Your task to perform on an android device: change the upload size in google photos Image 0: 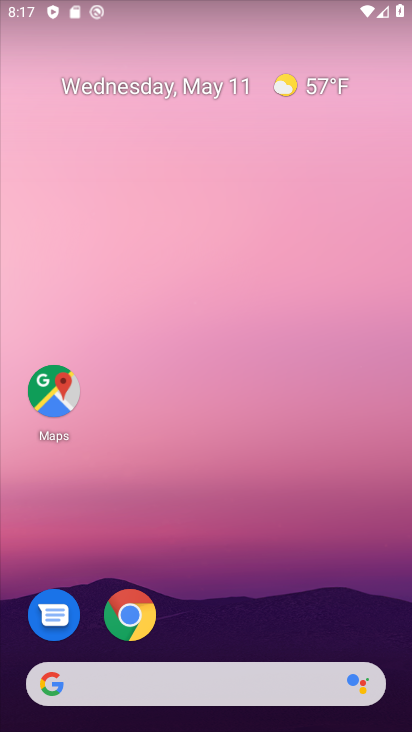
Step 0: drag from (297, 607) to (272, 139)
Your task to perform on an android device: change the upload size in google photos Image 1: 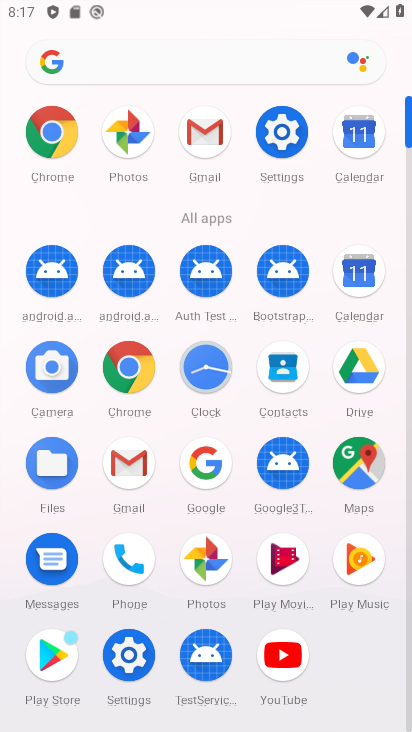
Step 1: click (218, 542)
Your task to perform on an android device: change the upload size in google photos Image 2: 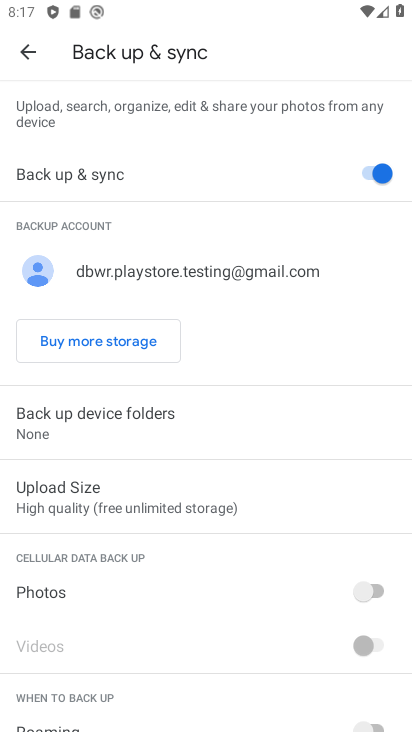
Step 2: click (142, 510)
Your task to perform on an android device: change the upload size in google photos Image 3: 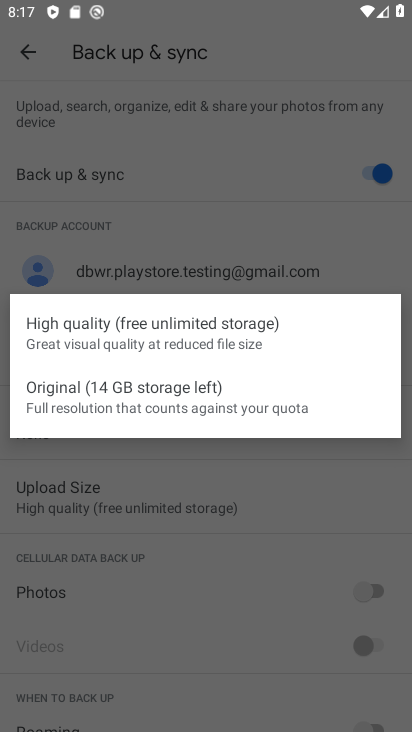
Step 3: click (146, 415)
Your task to perform on an android device: change the upload size in google photos Image 4: 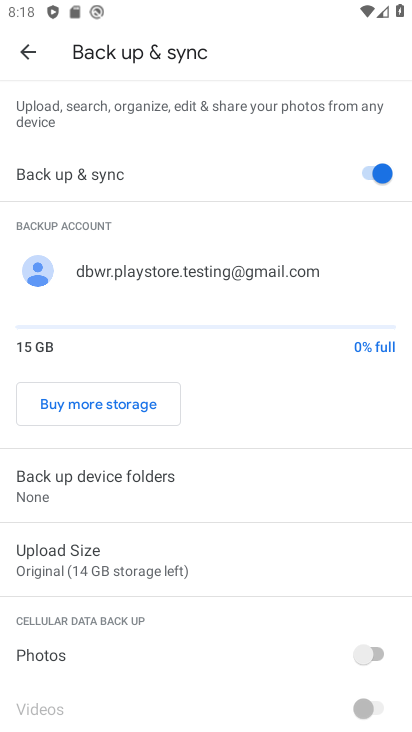
Step 4: task complete